Your task to perform on an android device: move an email to a new category in the gmail app Image 0: 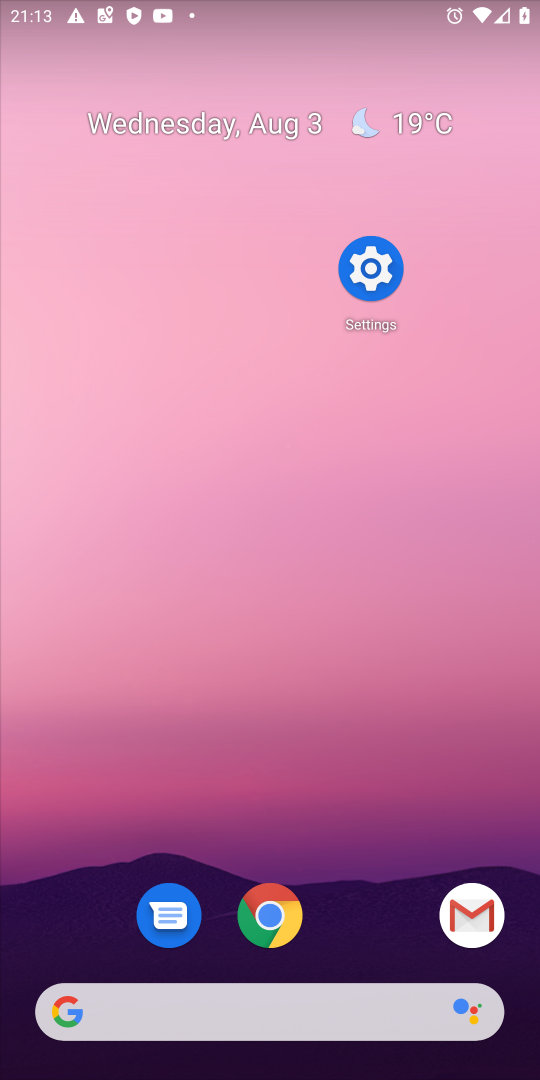
Step 0: drag from (382, 1037) to (286, 219)
Your task to perform on an android device: move an email to a new category in the gmail app Image 1: 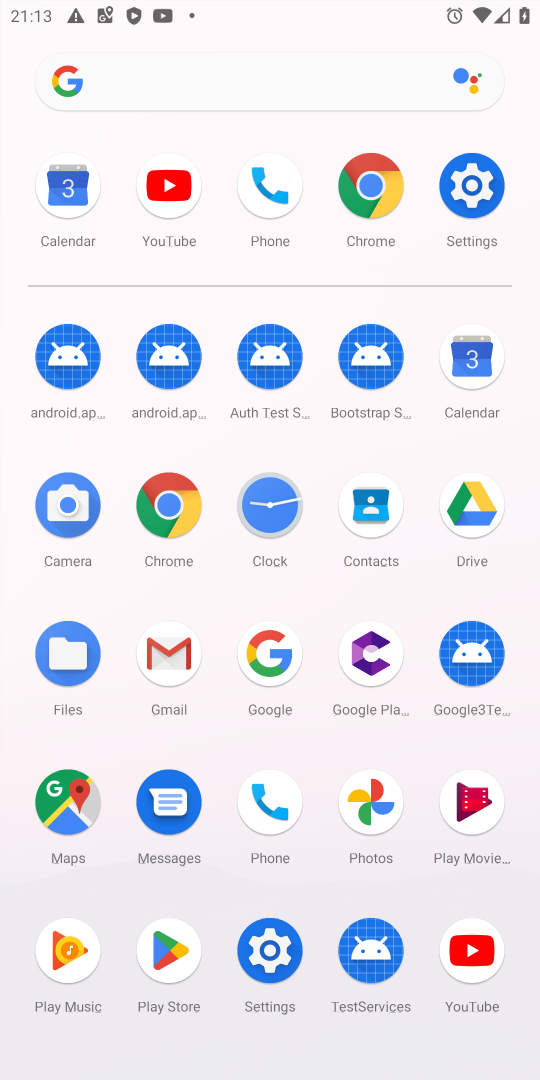
Step 1: click (165, 938)
Your task to perform on an android device: move an email to a new category in the gmail app Image 2: 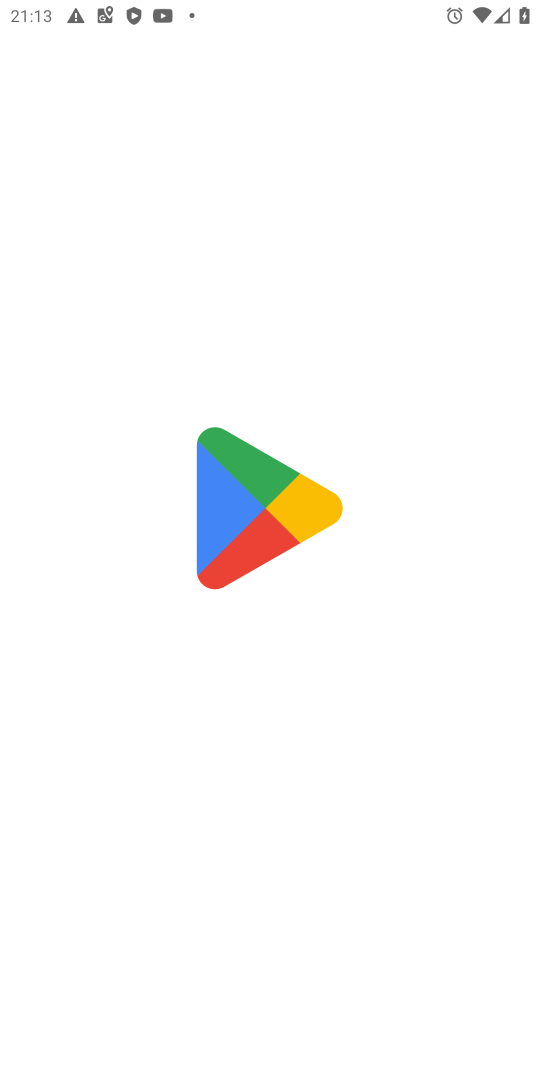
Step 2: press home button
Your task to perform on an android device: move an email to a new category in the gmail app Image 3: 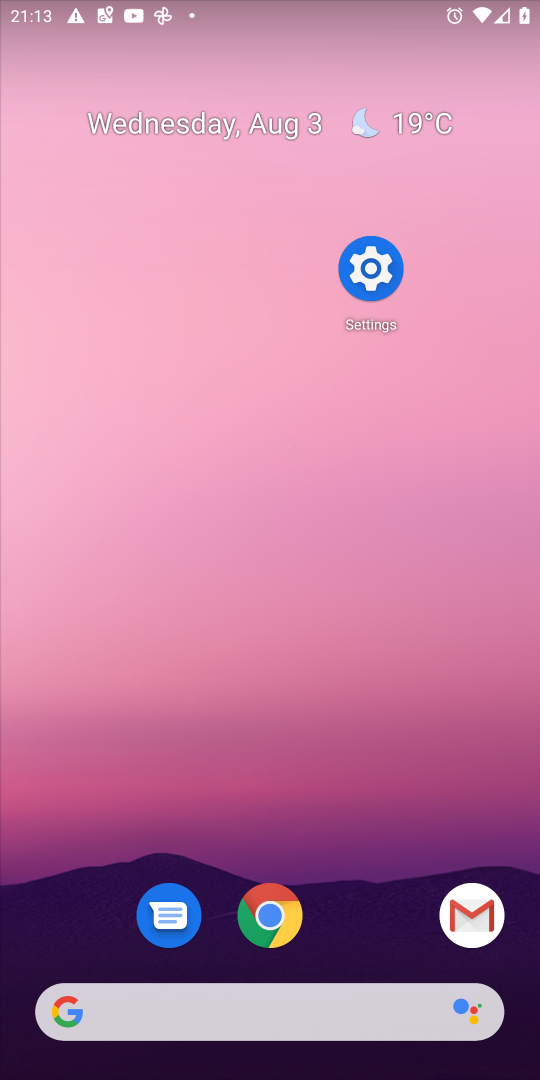
Step 3: drag from (362, 952) to (302, 190)
Your task to perform on an android device: move an email to a new category in the gmail app Image 4: 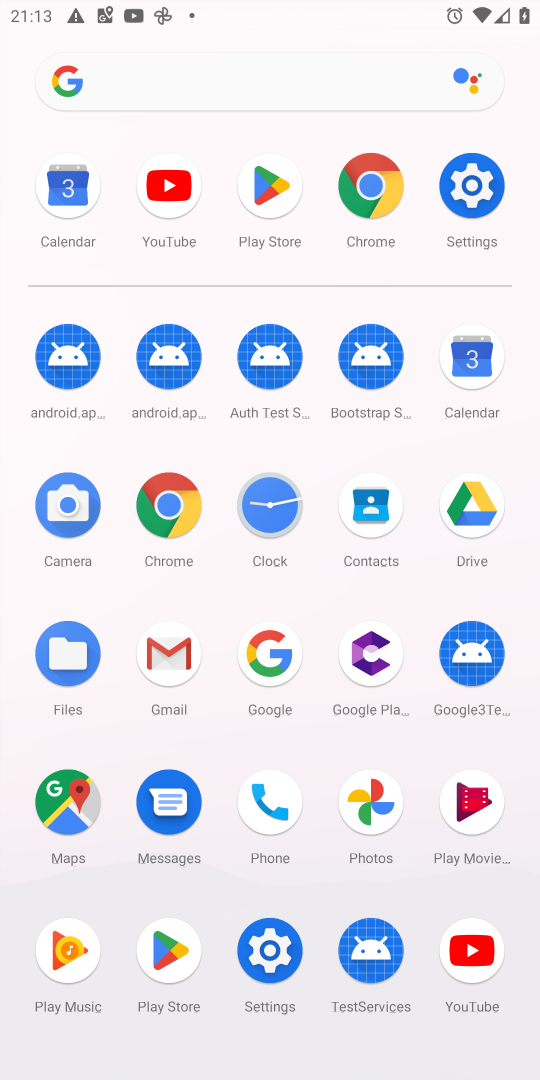
Step 4: click (176, 648)
Your task to perform on an android device: move an email to a new category in the gmail app Image 5: 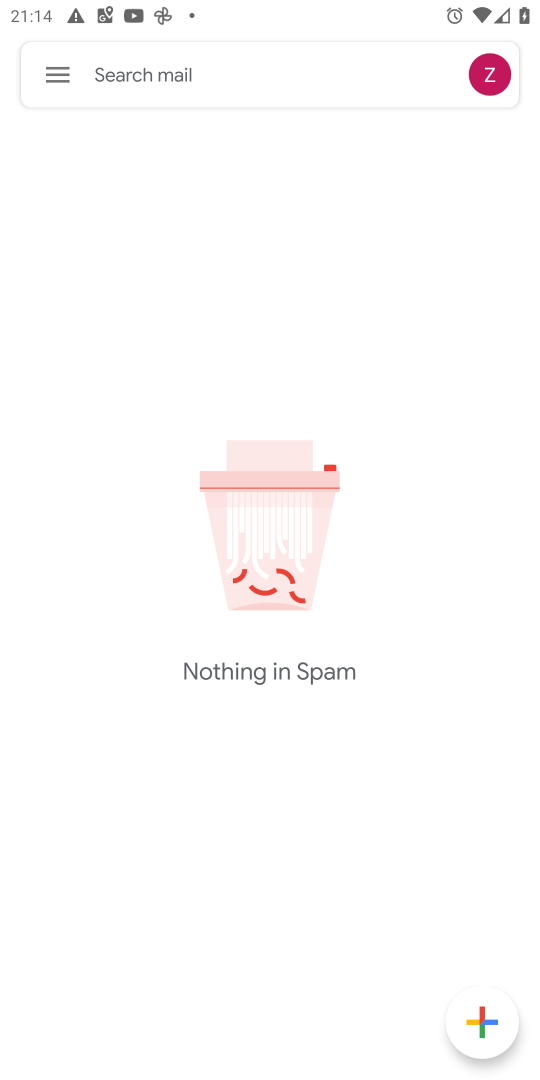
Step 5: click (76, 72)
Your task to perform on an android device: move an email to a new category in the gmail app Image 6: 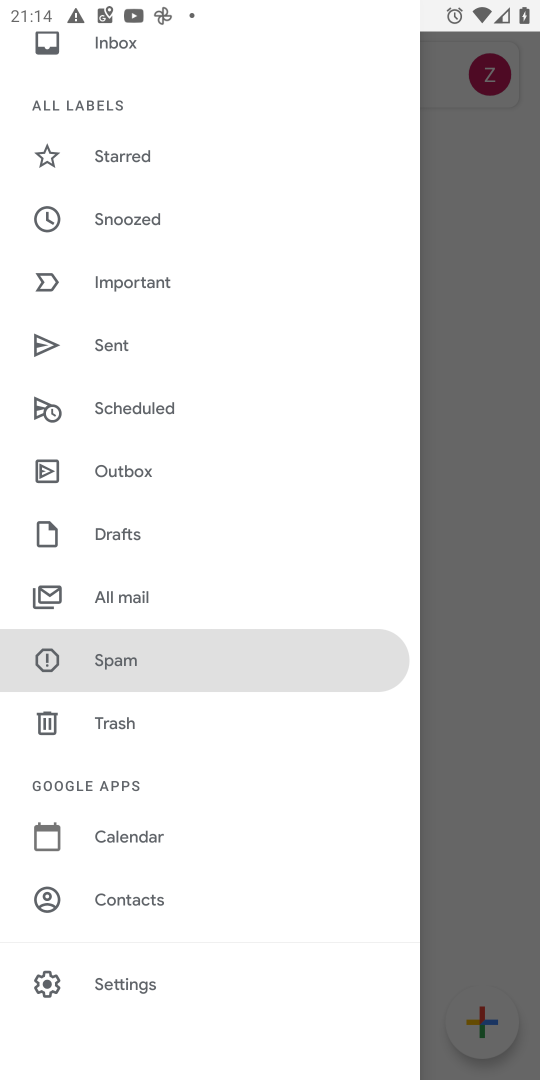
Step 6: click (151, 978)
Your task to perform on an android device: move an email to a new category in the gmail app Image 7: 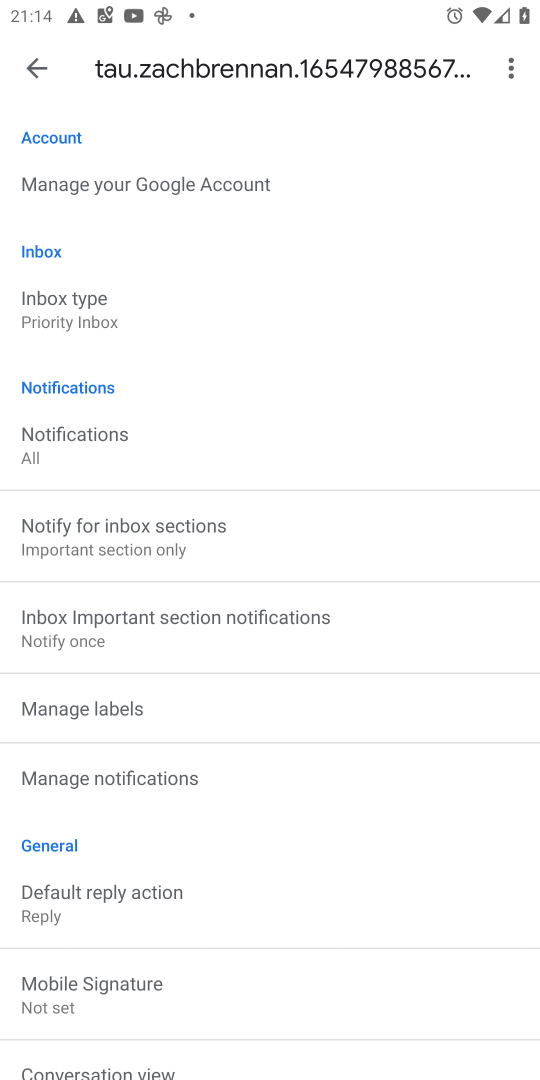
Step 7: click (103, 292)
Your task to perform on an android device: move an email to a new category in the gmail app Image 8: 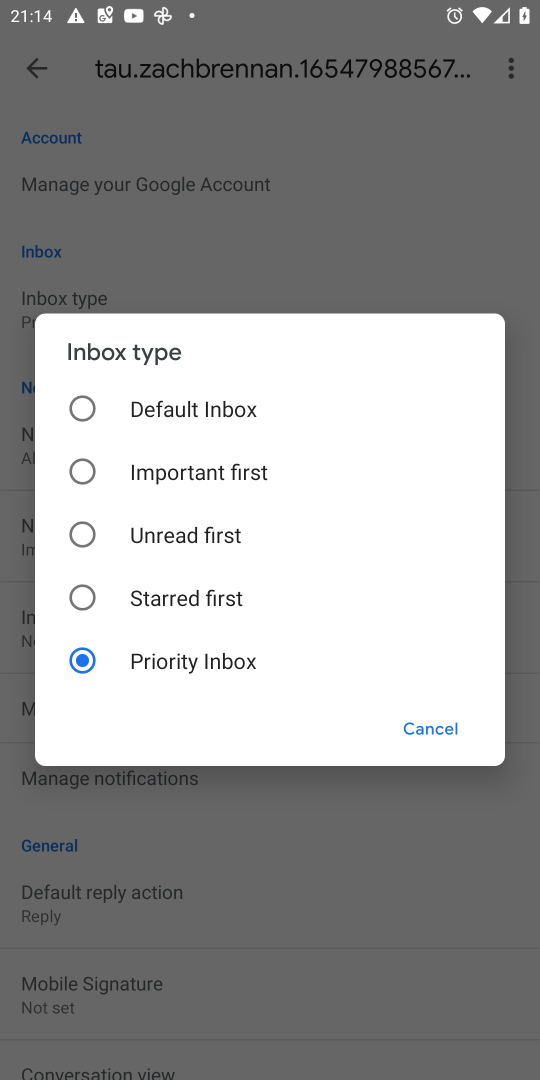
Step 8: click (143, 405)
Your task to perform on an android device: move an email to a new category in the gmail app Image 9: 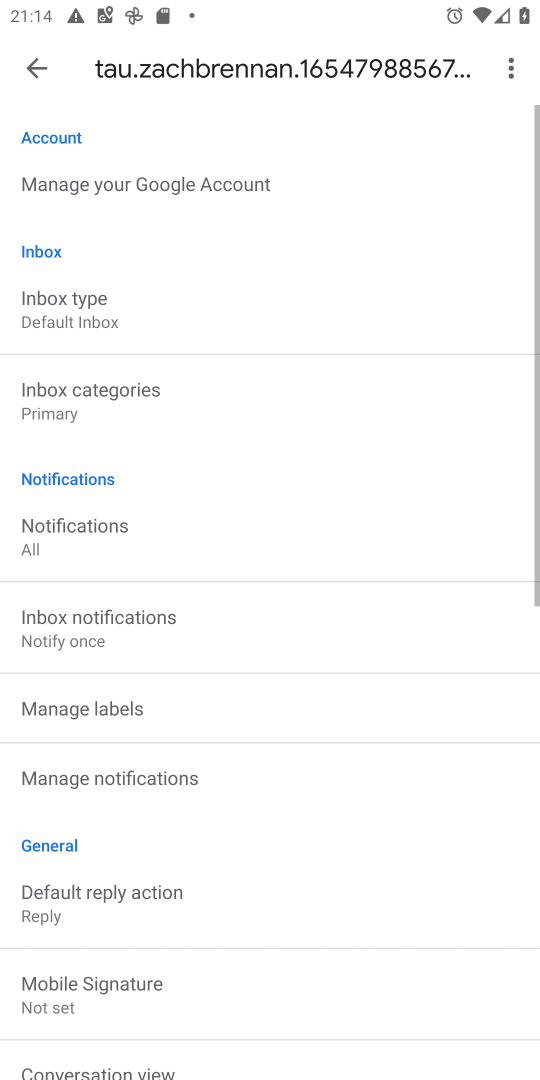
Step 9: click (111, 411)
Your task to perform on an android device: move an email to a new category in the gmail app Image 10: 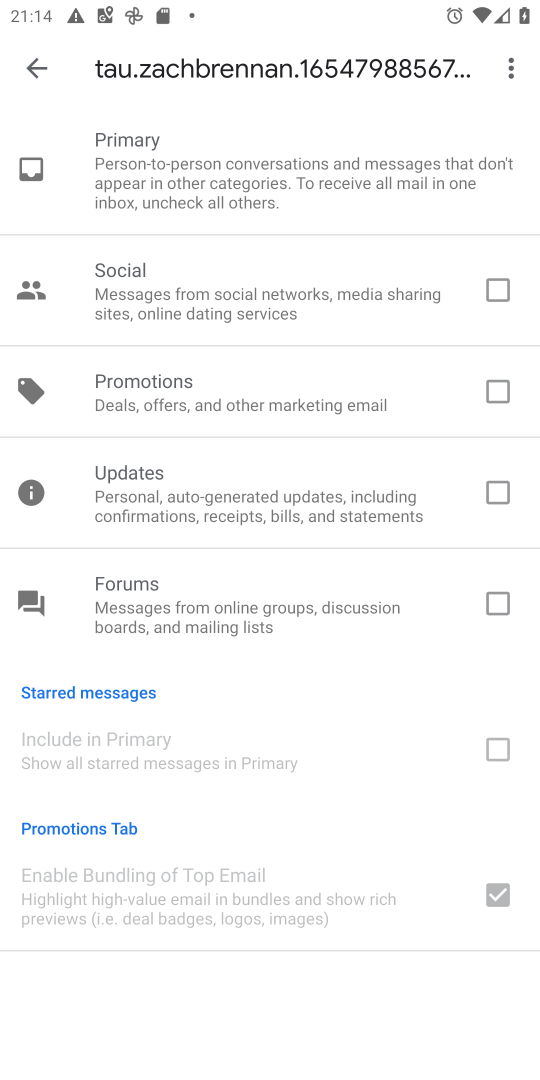
Step 10: click (489, 295)
Your task to perform on an android device: move an email to a new category in the gmail app Image 11: 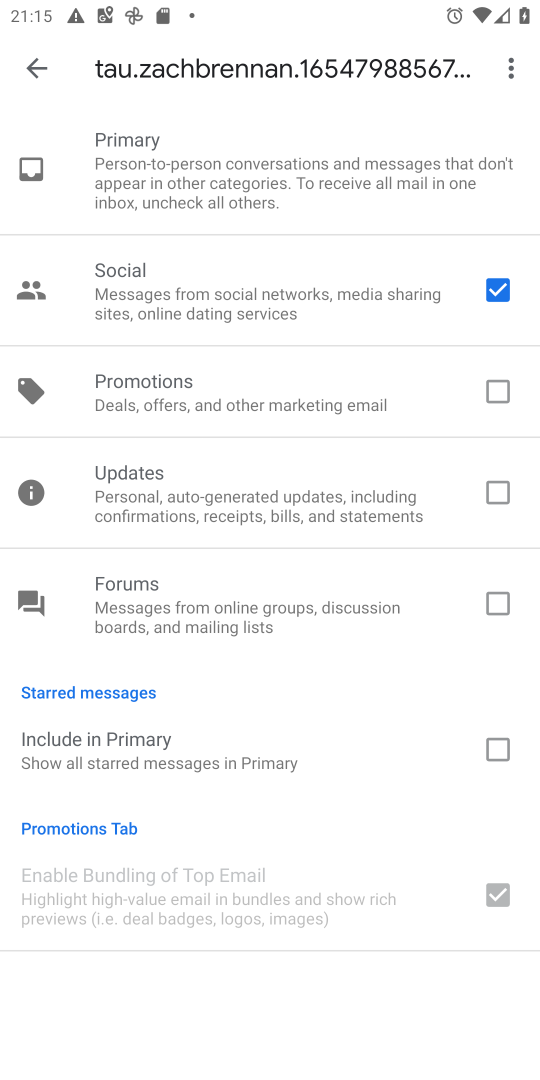
Step 11: task complete